Your task to perform on an android device: Search for "macbook pro" on costco.com, select the first entry, add it to the cart, then select checkout. Image 0: 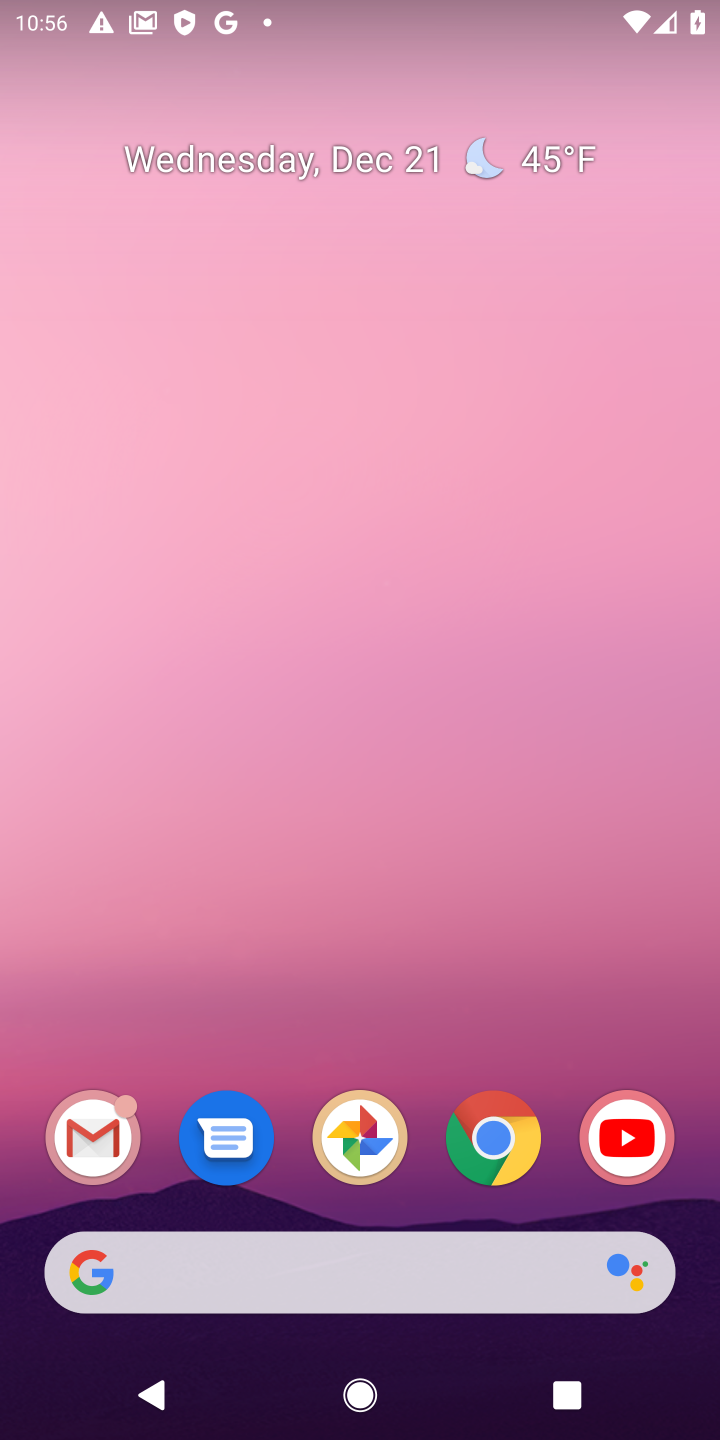
Step 0: click (494, 1156)
Your task to perform on an android device: Search for "macbook pro" on costco.com, select the first entry, add it to the cart, then select checkout. Image 1: 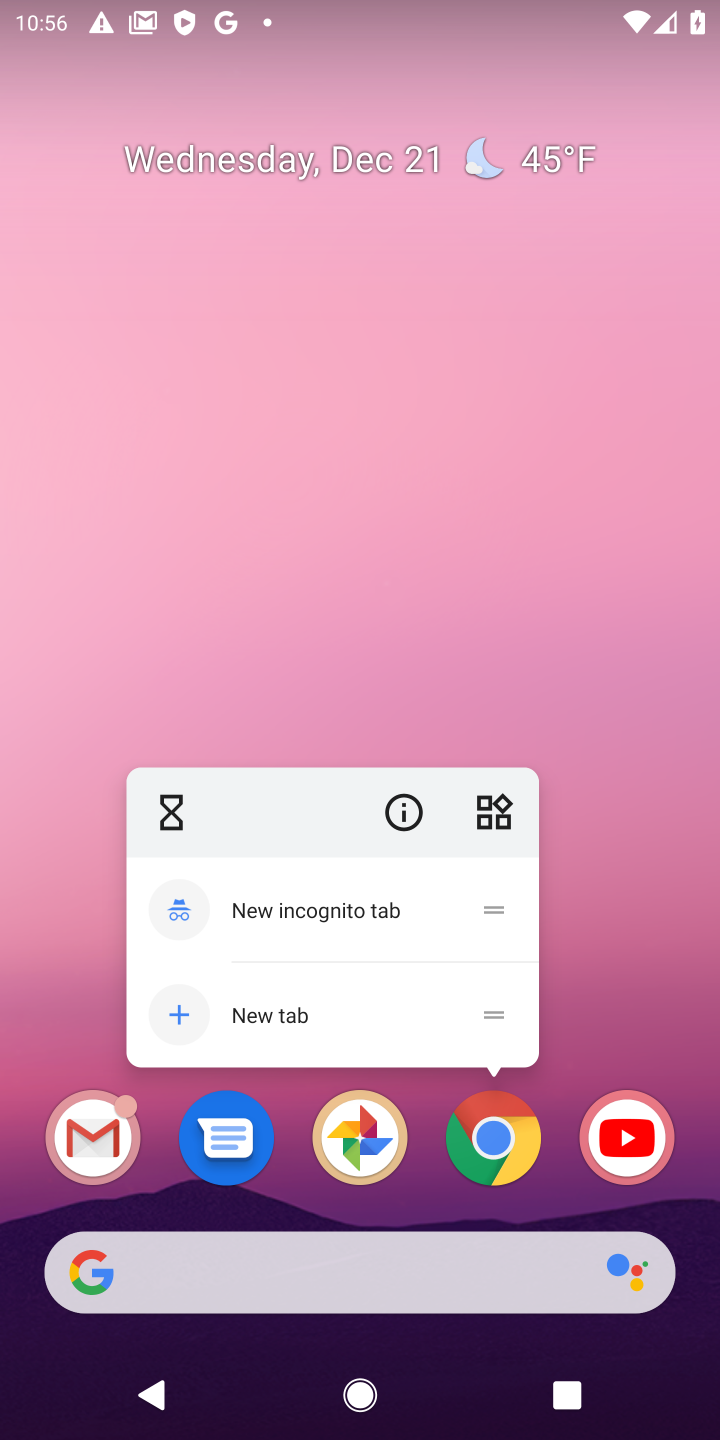
Step 1: click (500, 1148)
Your task to perform on an android device: Search for "macbook pro" on costco.com, select the first entry, add it to the cart, then select checkout. Image 2: 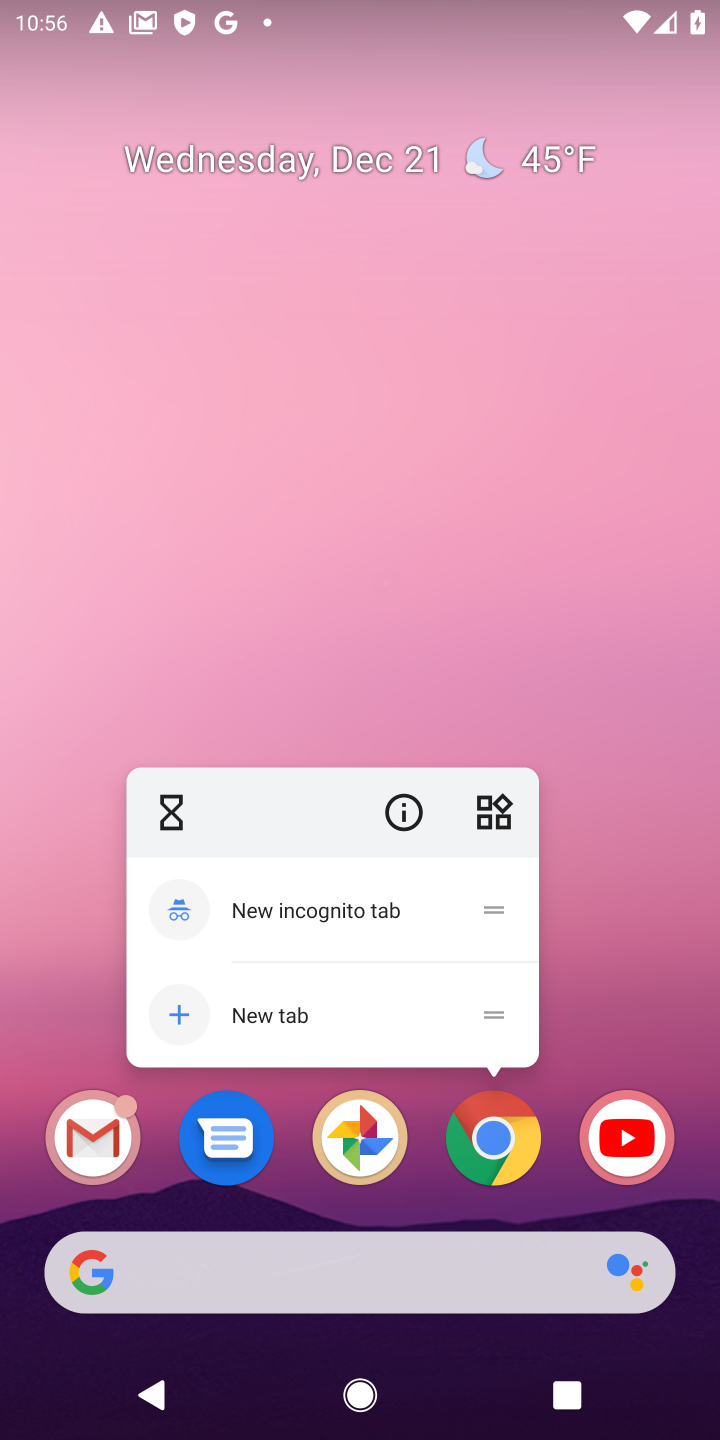
Step 2: click (500, 1148)
Your task to perform on an android device: Search for "macbook pro" on costco.com, select the first entry, add it to the cart, then select checkout. Image 3: 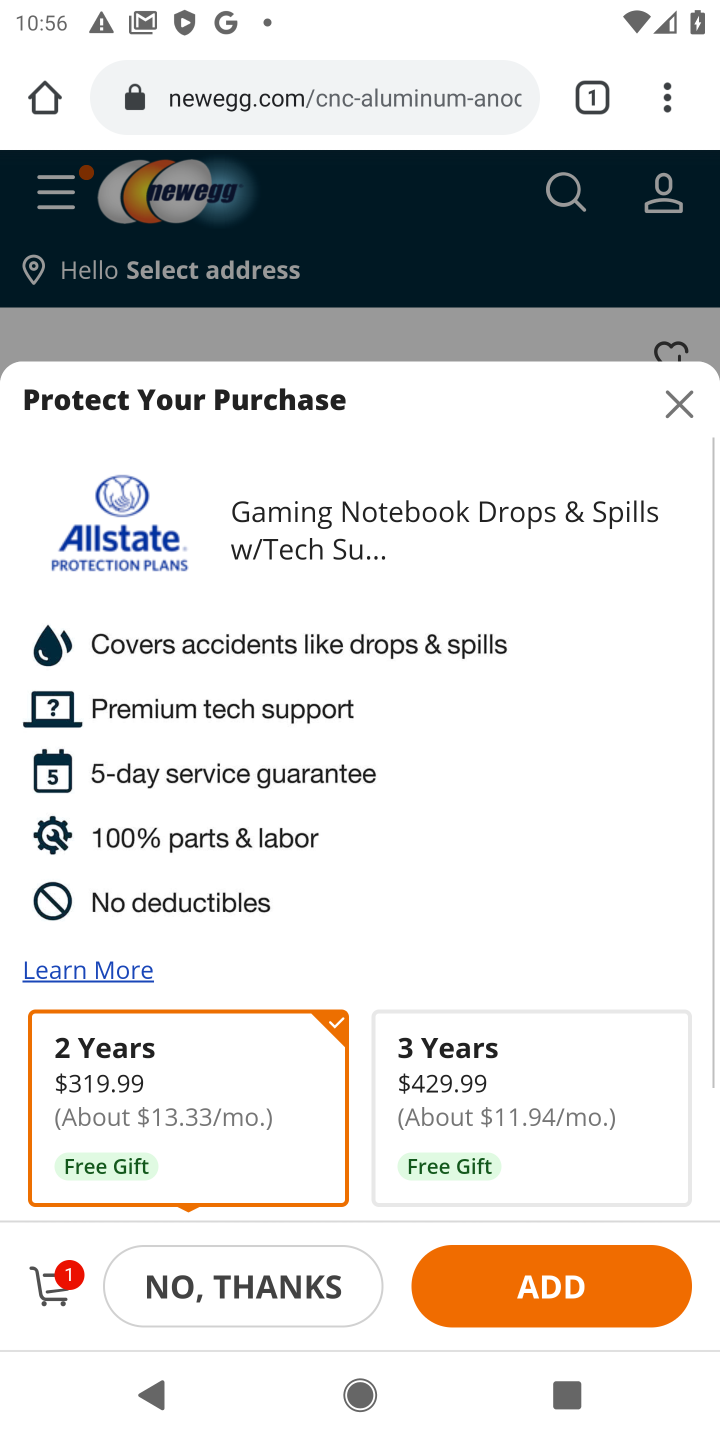
Step 3: click (287, 101)
Your task to perform on an android device: Search for "macbook pro" on costco.com, select the first entry, add it to the cart, then select checkout. Image 4: 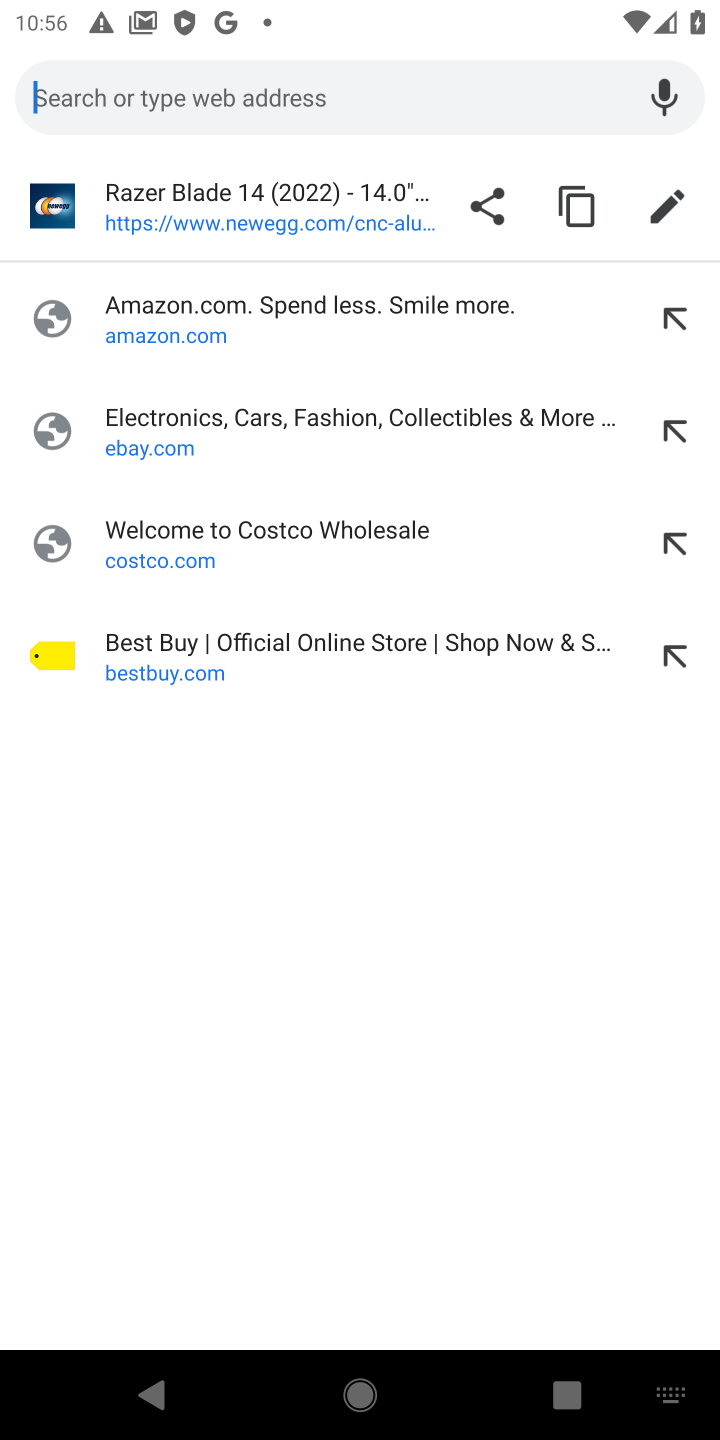
Step 4: click (169, 560)
Your task to perform on an android device: Search for "macbook pro" on costco.com, select the first entry, add it to the cart, then select checkout. Image 5: 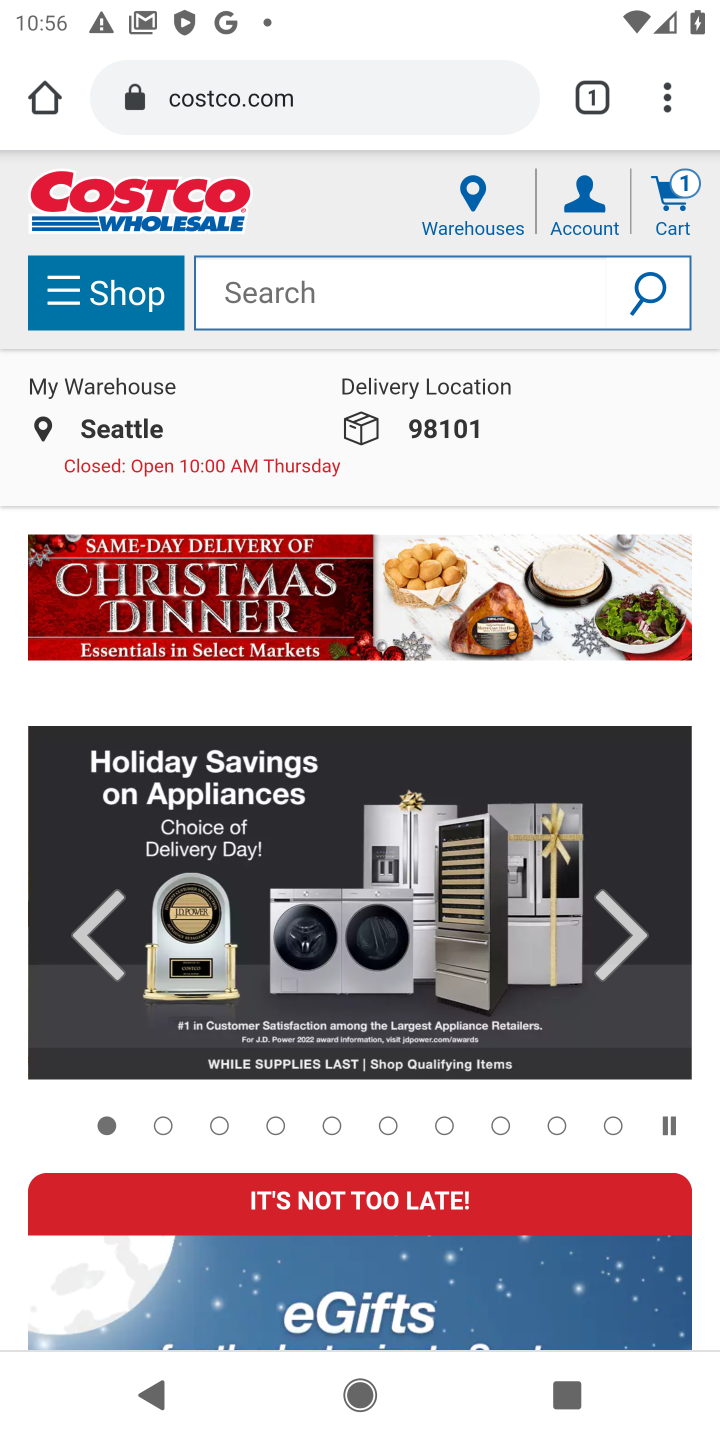
Step 5: click (281, 301)
Your task to perform on an android device: Search for "macbook pro" on costco.com, select the first entry, add it to the cart, then select checkout. Image 6: 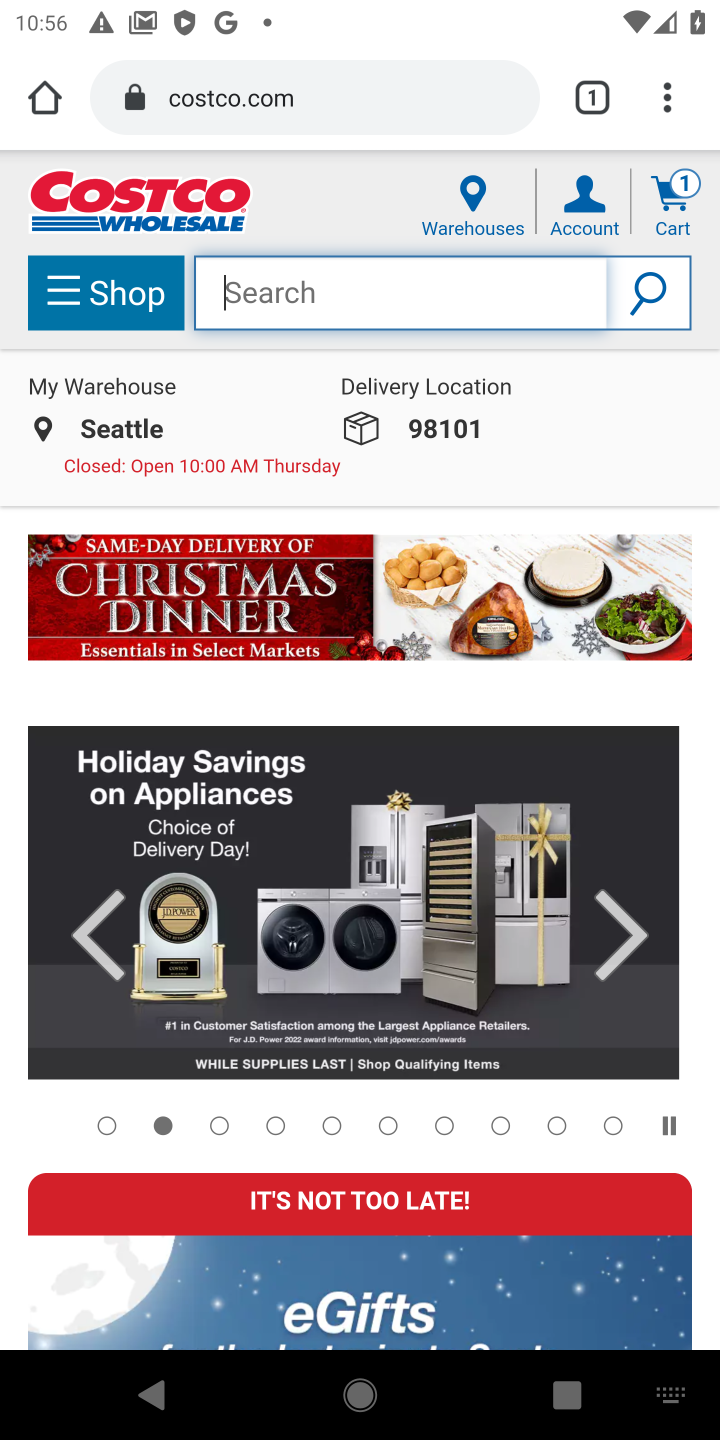
Step 6: type "macbook pro"
Your task to perform on an android device: Search for "macbook pro" on costco.com, select the first entry, add it to the cart, then select checkout. Image 7: 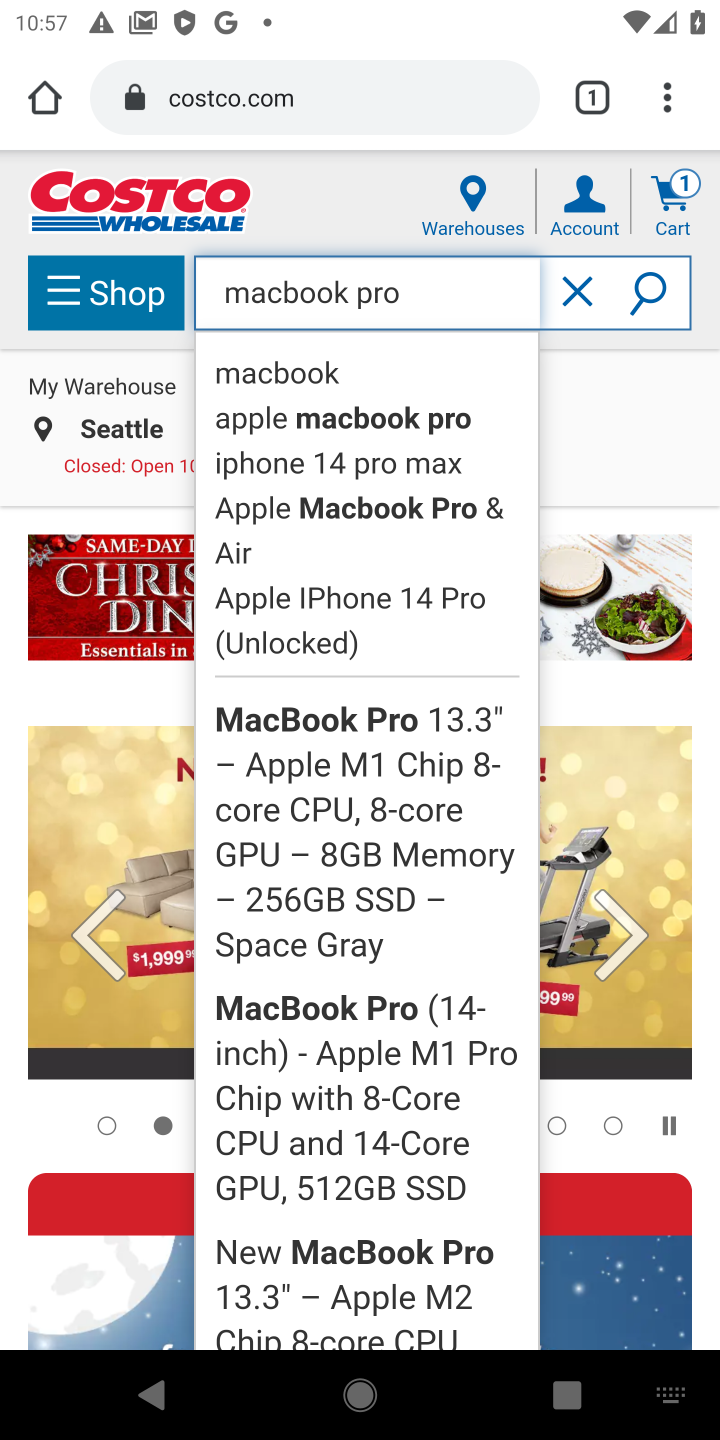
Step 7: click (648, 295)
Your task to perform on an android device: Search for "macbook pro" on costco.com, select the first entry, add it to the cart, then select checkout. Image 8: 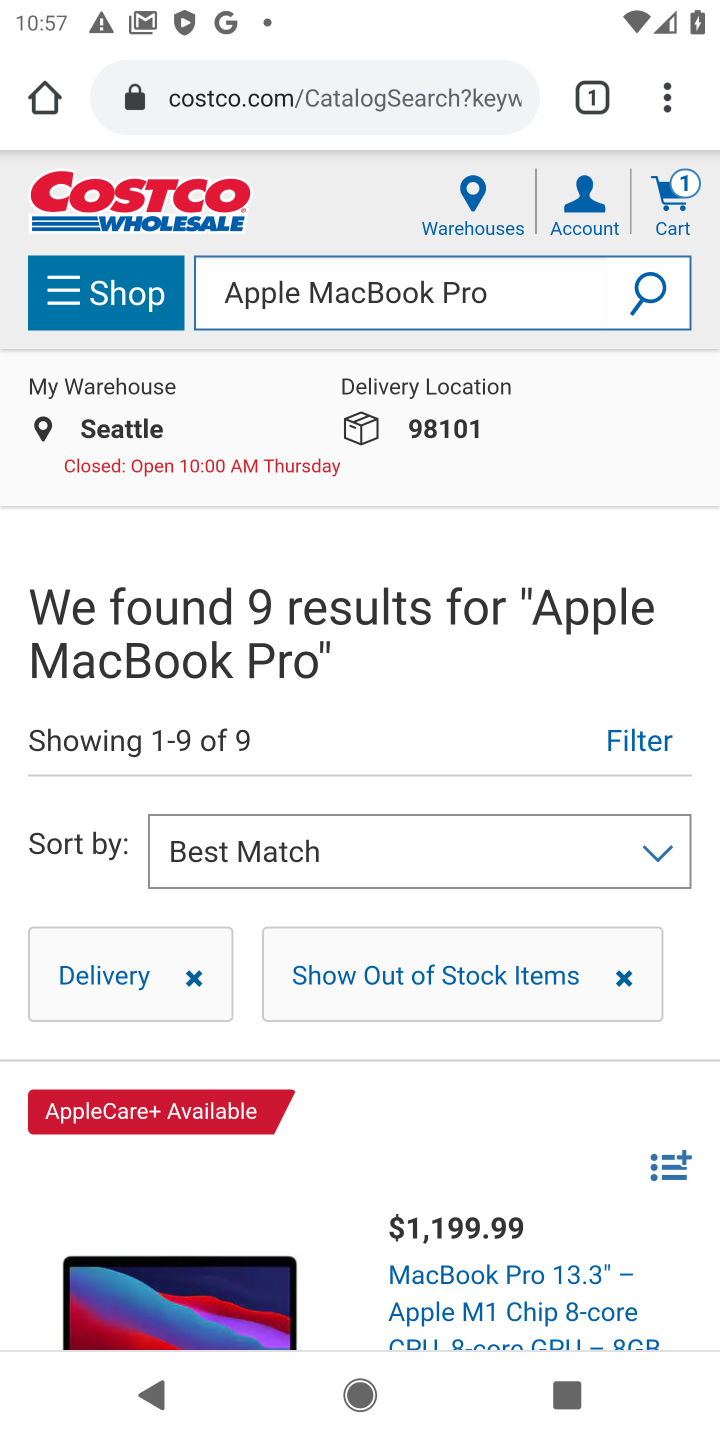
Step 8: drag from (258, 847) to (330, 546)
Your task to perform on an android device: Search for "macbook pro" on costco.com, select the first entry, add it to the cart, then select checkout. Image 9: 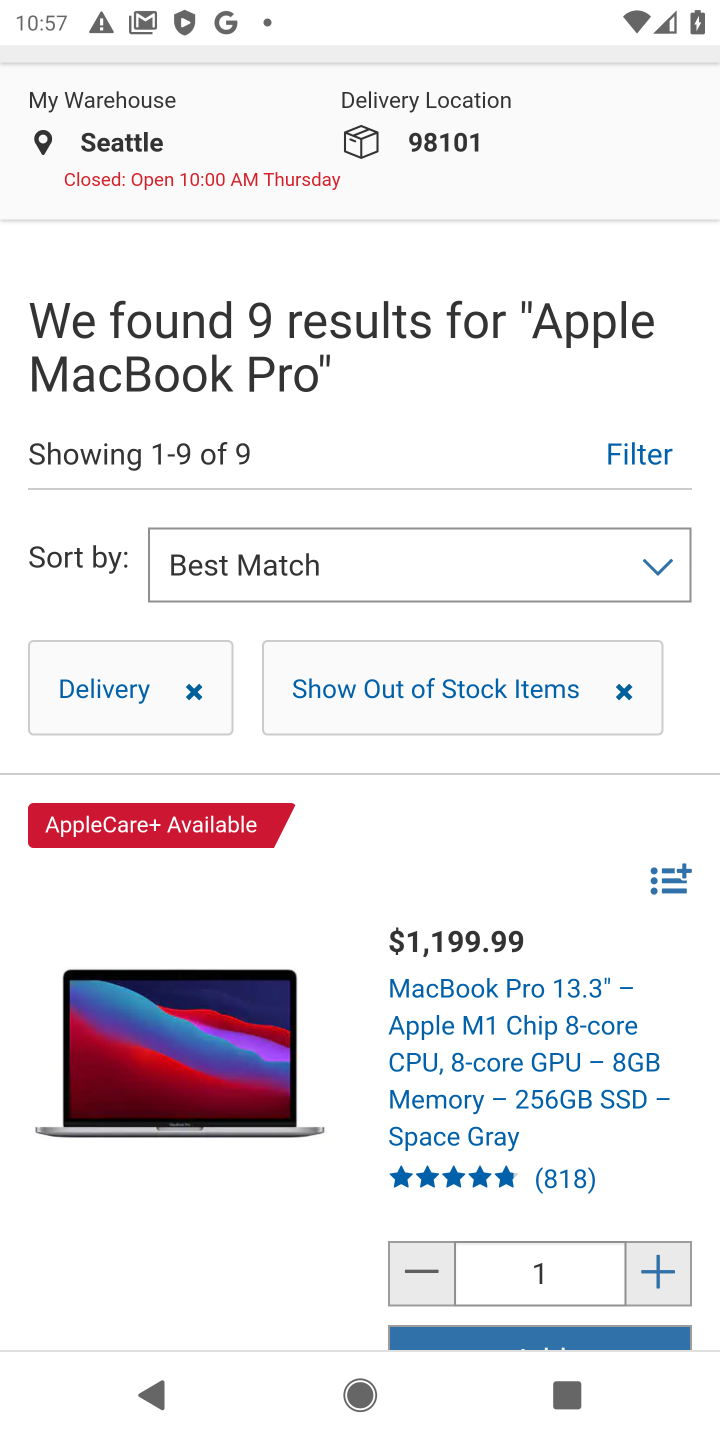
Step 9: drag from (476, 1056) to (507, 687)
Your task to perform on an android device: Search for "macbook pro" on costco.com, select the first entry, add it to the cart, then select checkout. Image 10: 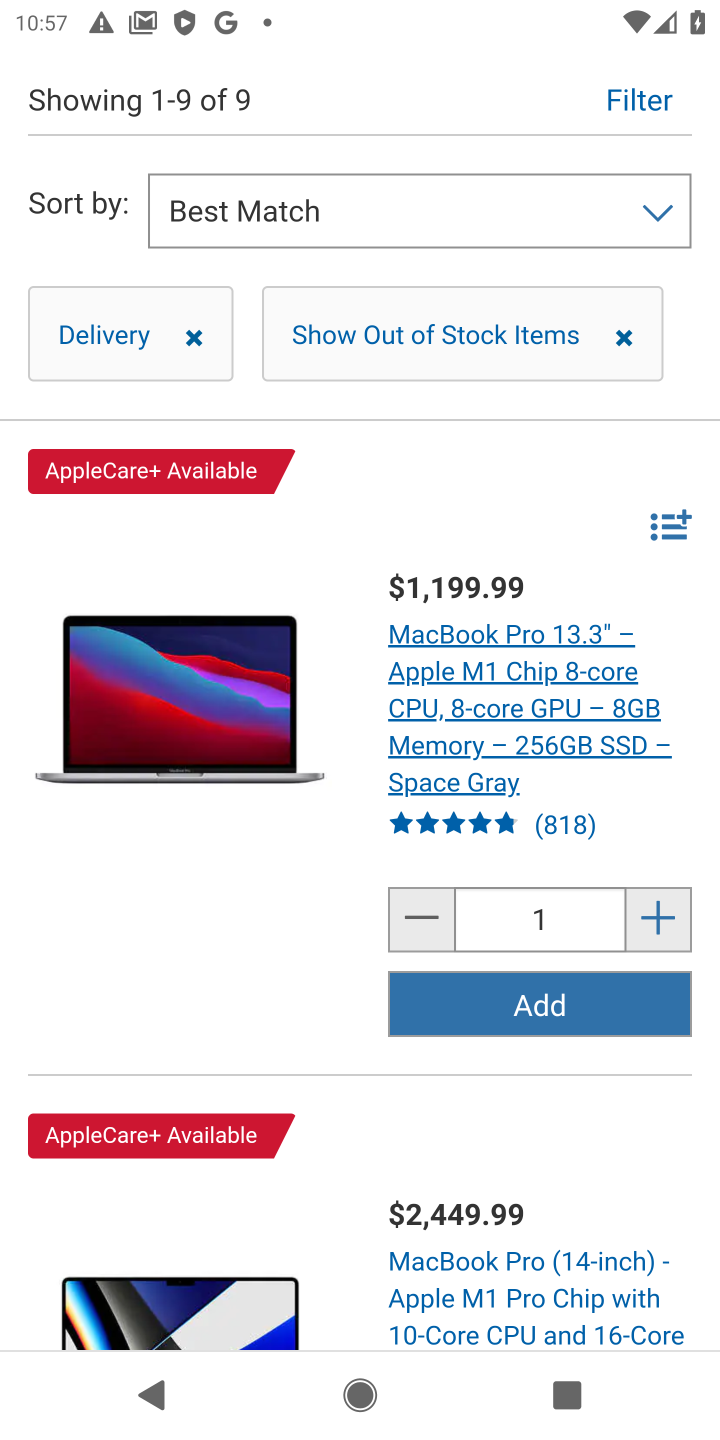
Step 10: click (520, 1008)
Your task to perform on an android device: Search for "macbook pro" on costco.com, select the first entry, add it to the cart, then select checkout. Image 11: 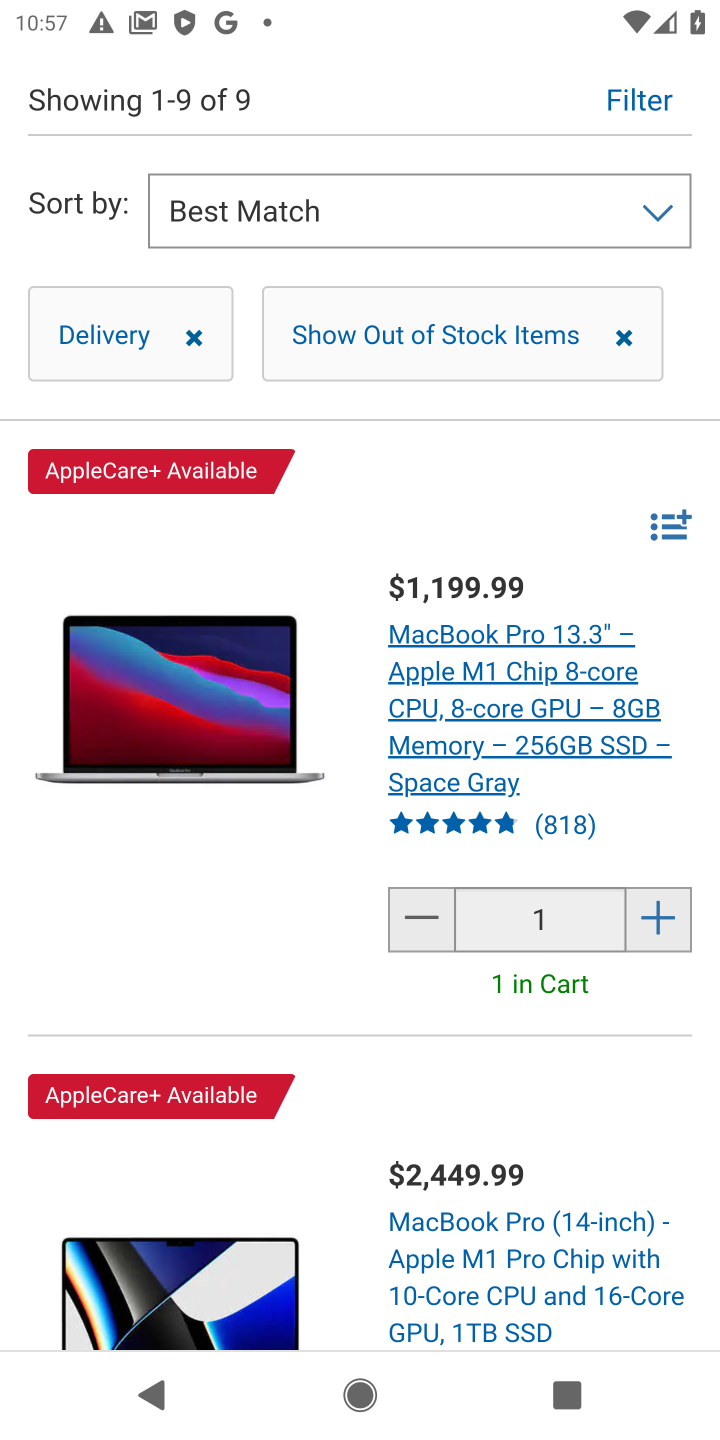
Step 11: drag from (543, 503) to (491, 1078)
Your task to perform on an android device: Search for "macbook pro" on costco.com, select the first entry, add it to the cart, then select checkout. Image 12: 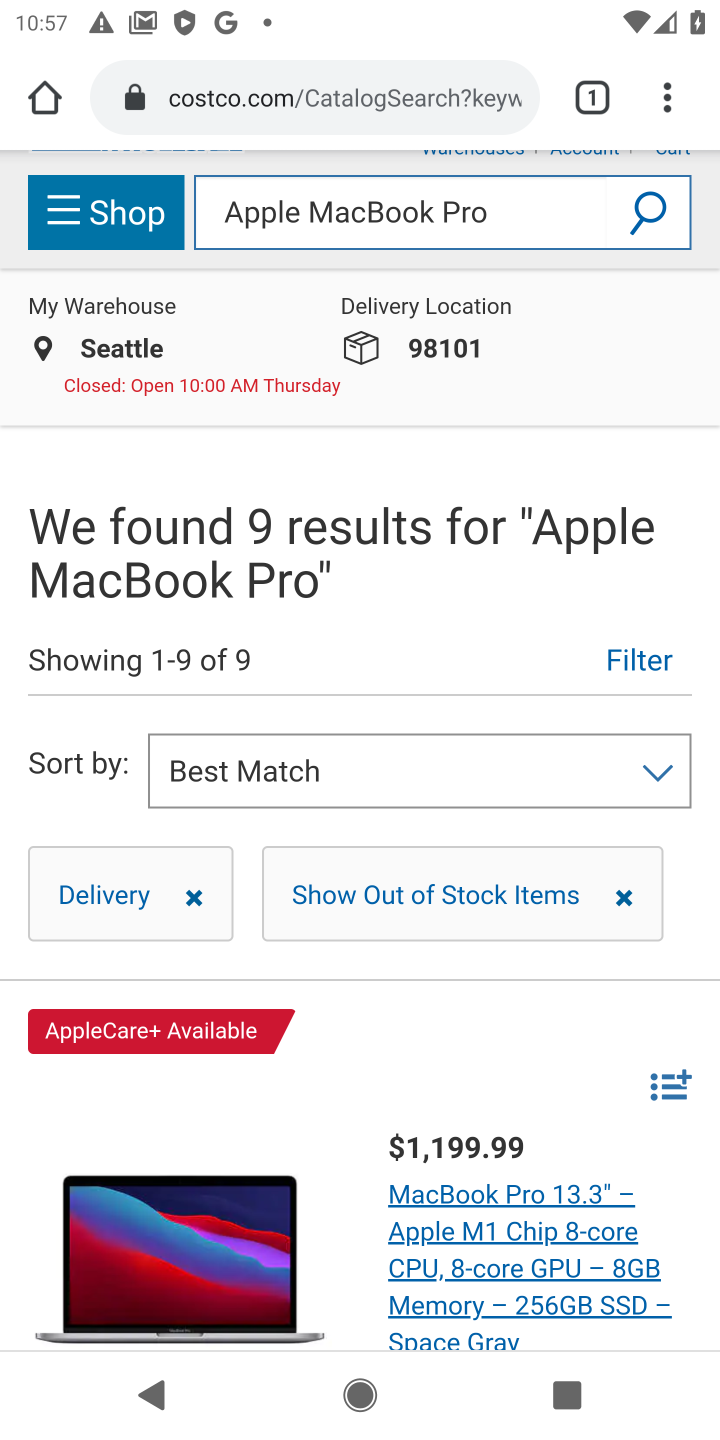
Step 12: drag from (605, 281) to (609, 591)
Your task to perform on an android device: Search for "macbook pro" on costco.com, select the first entry, add it to the cart, then select checkout. Image 13: 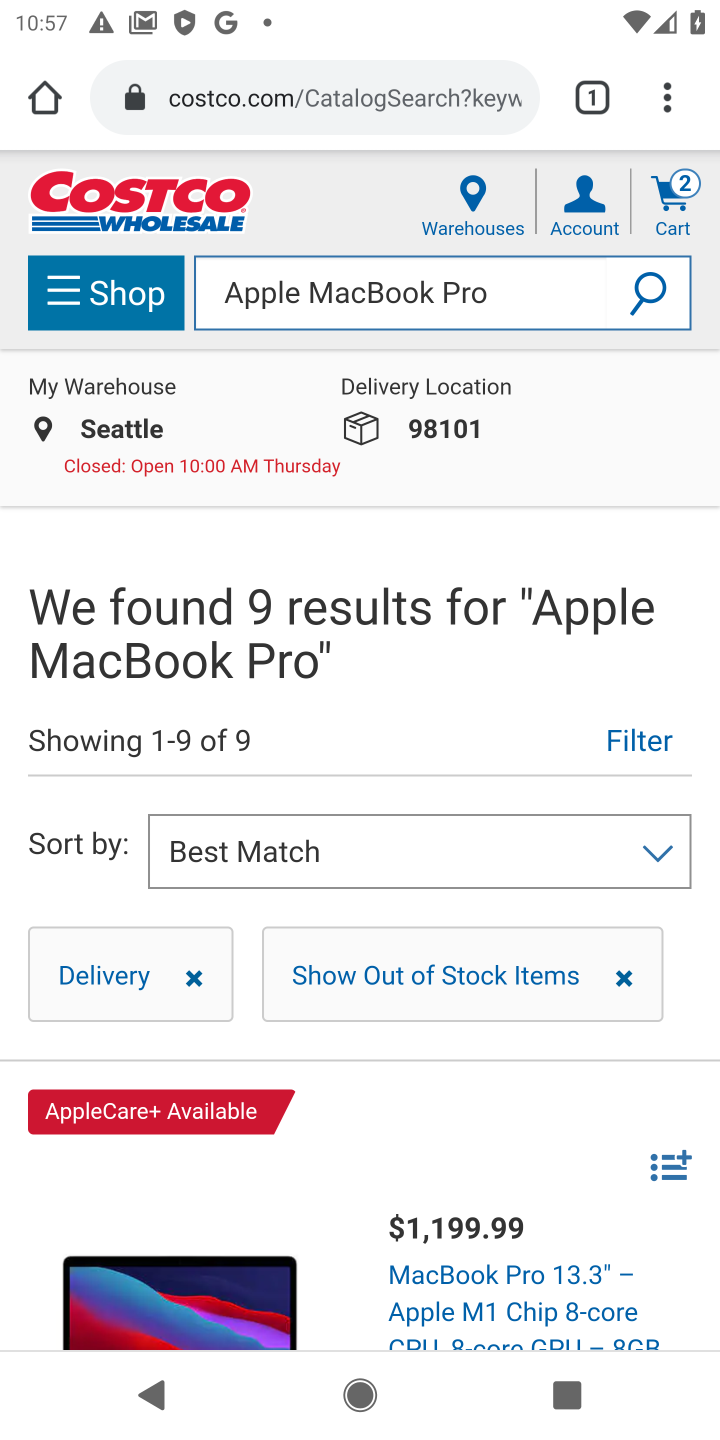
Step 13: click (666, 199)
Your task to perform on an android device: Search for "macbook pro" on costco.com, select the first entry, add it to the cart, then select checkout. Image 14: 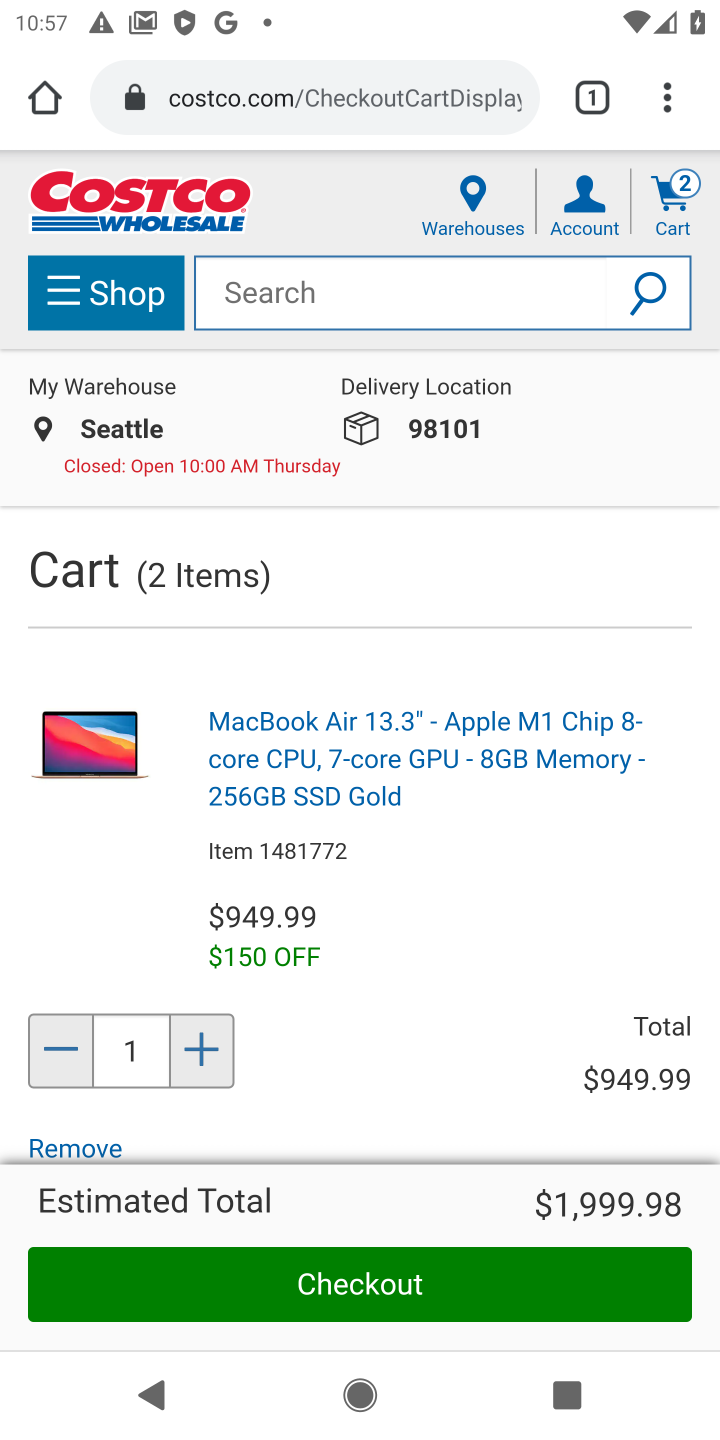
Step 14: click (302, 1291)
Your task to perform on an android device: Search for "macbook pro" on costco.com, select the first entry, add it to the cart, then select checkout. Image 15: 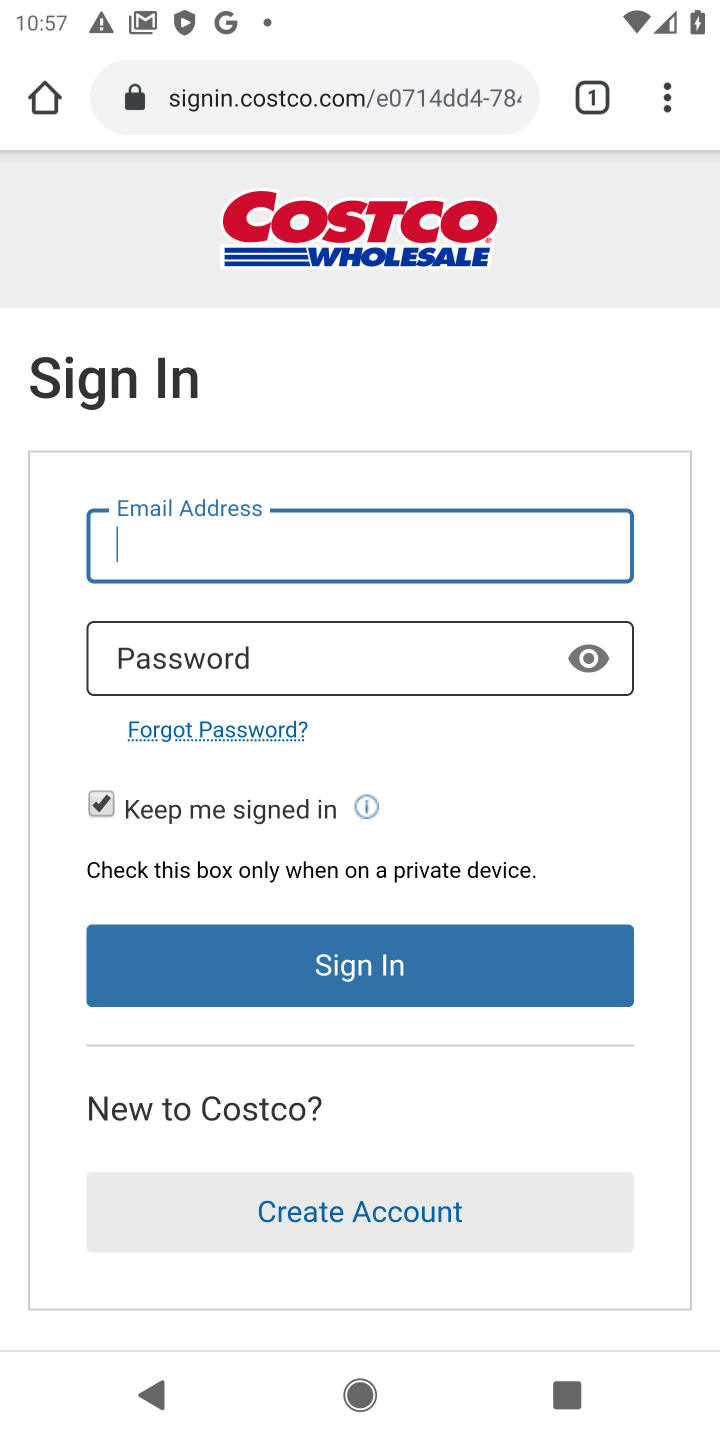
Step 15: task complete